Your task to perform on an android device: Go to notification settings Image 0: 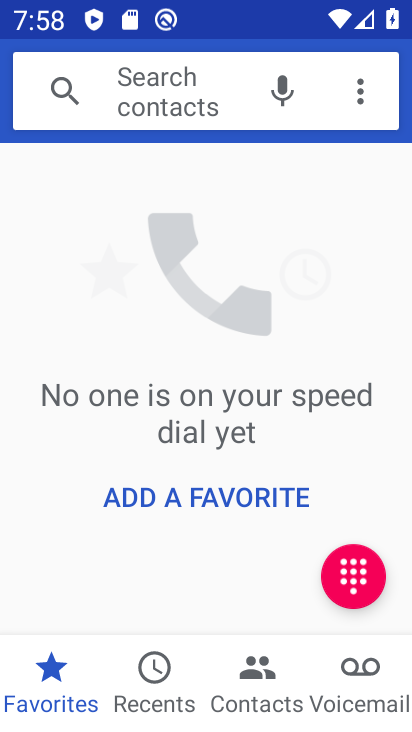
Step 0: press home button
Your task to perform on an android device: Go to notification settings Image 1: 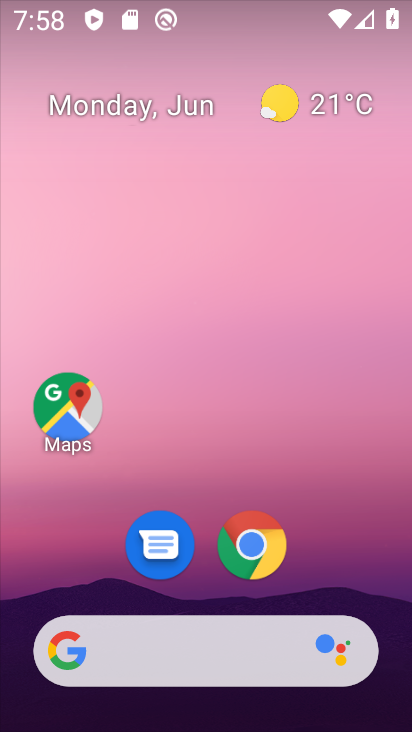
Step 1: drag from (323, 547) to (284, 154)
Your task to perform on an android device: Go to notification settings Image 2: 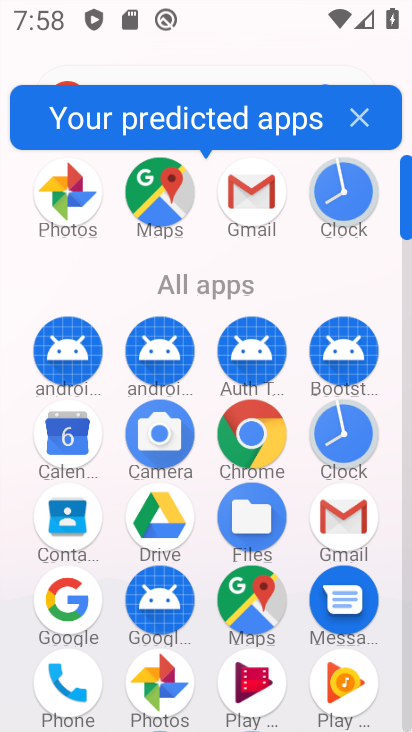
Step 2: drag from (154, 577) to (177, 209)
Your task to perform on an android device: Go to notification settings Image 3: 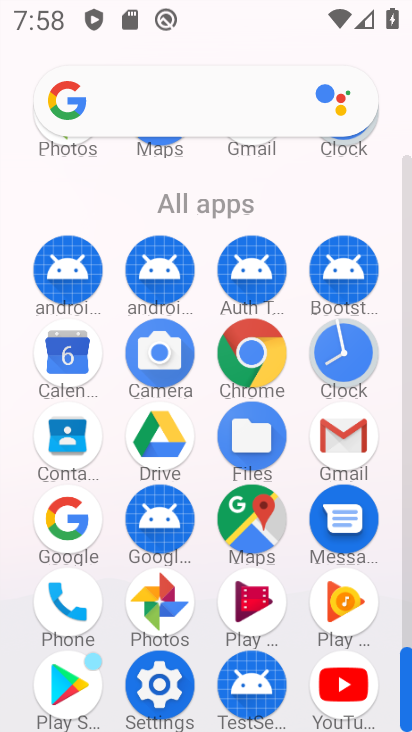
Step 3: click (164, 686)
Your task to perform on an android device: Go to notification settings Image 4: 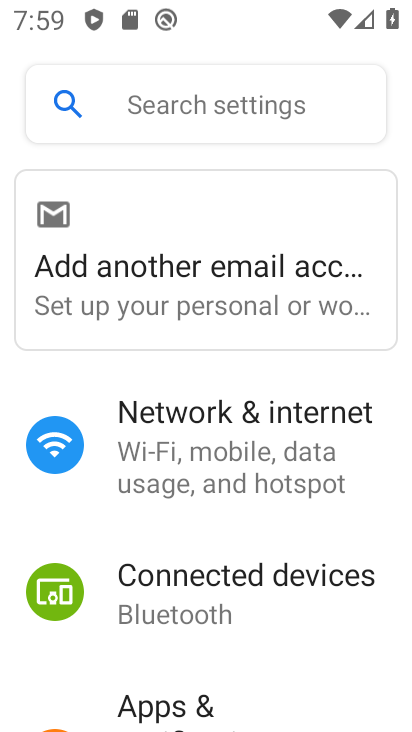
Step 4: drag from (212, 513) to (199, 208)
Your task to perform on an android device: Go to notification settings Image 5: 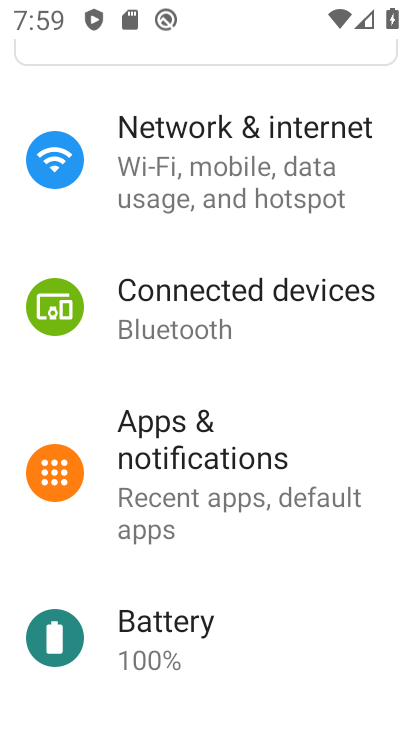
Step 5: click (250, 437)
Your task to perform on an android device: Go to notification settings Image 6: 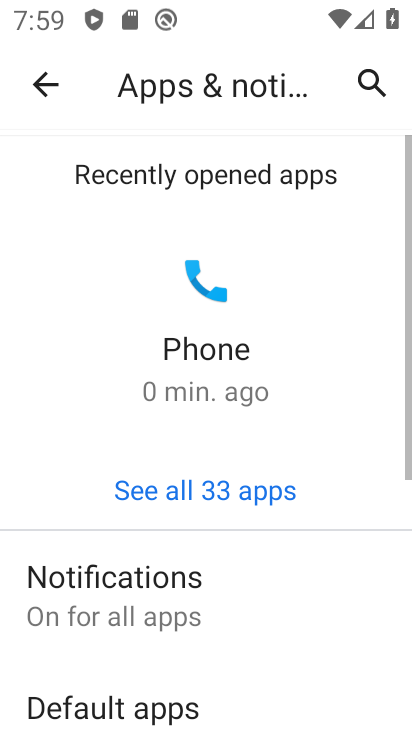
Step 6: task complete